Your task to perform on an android device: Go to Reddit.com Image 0: 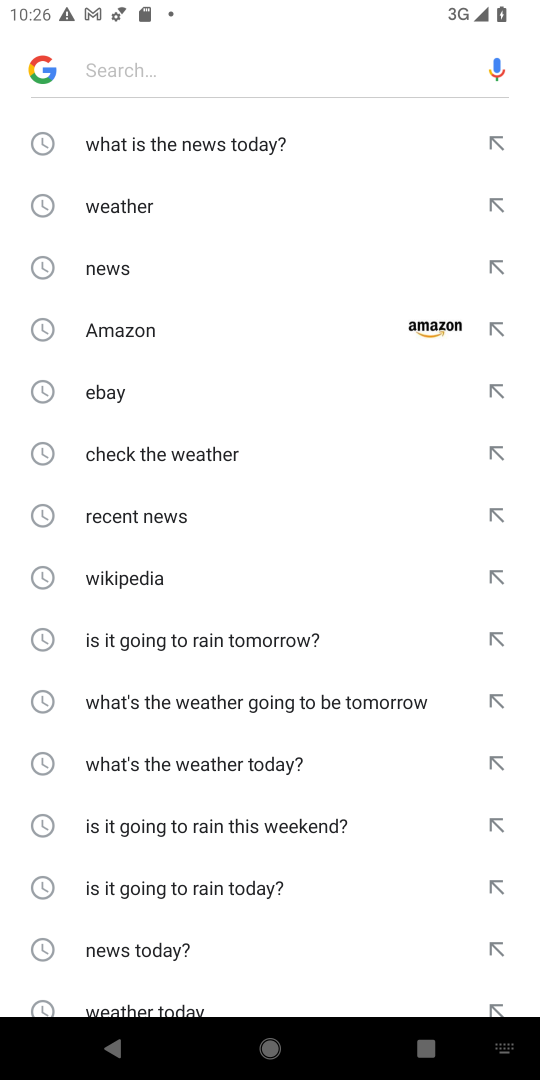
Step 0: press home button
Your task to perform on an android device: Go to Reddit.com Image 1: 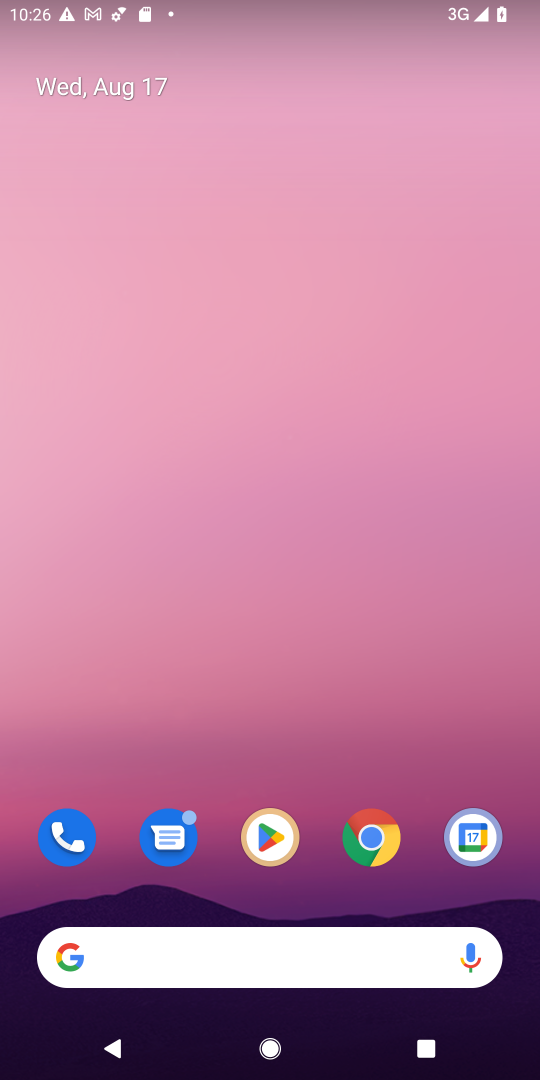
Step 1: click (367, 839)
Your task to perform on an android device: Go to Reddit.com Image 2: 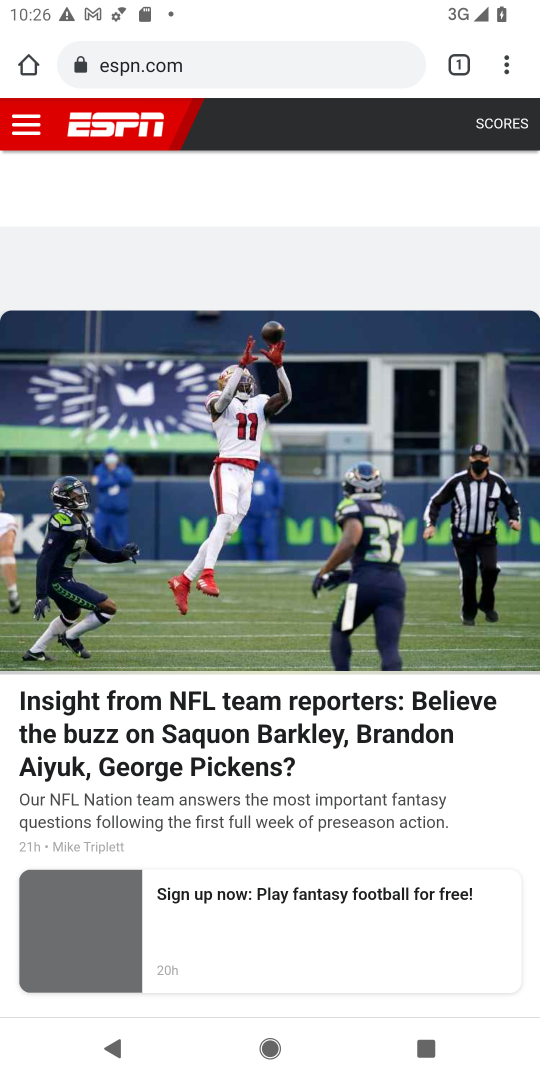
Step 2: click (332, 52)
Your task to perform on an android device: Go to Reddit.com Image 3: 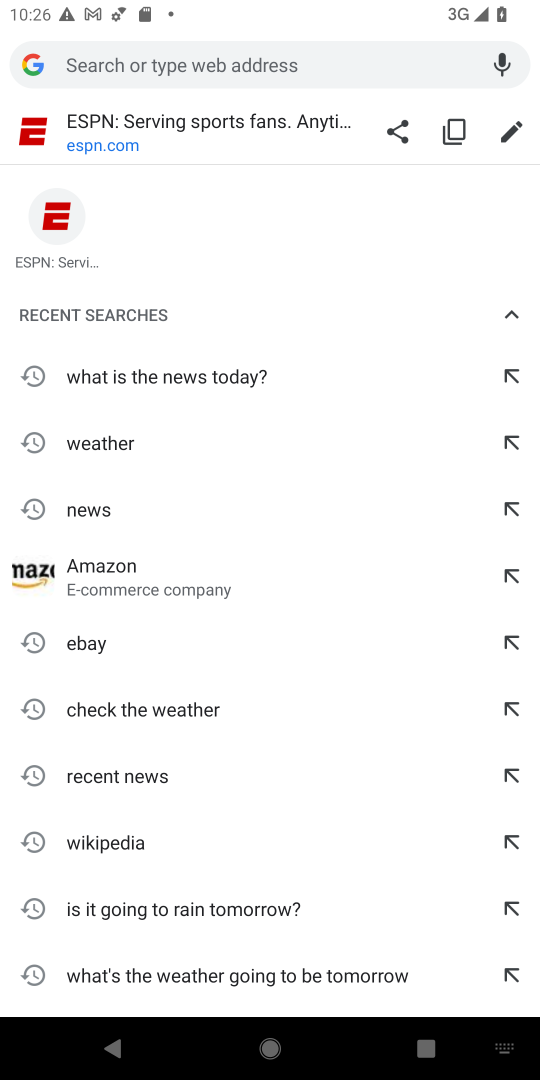
Step 3: type "Reddit.com"
Your task to perform on an android device: Go to Reddit.com Image 4: 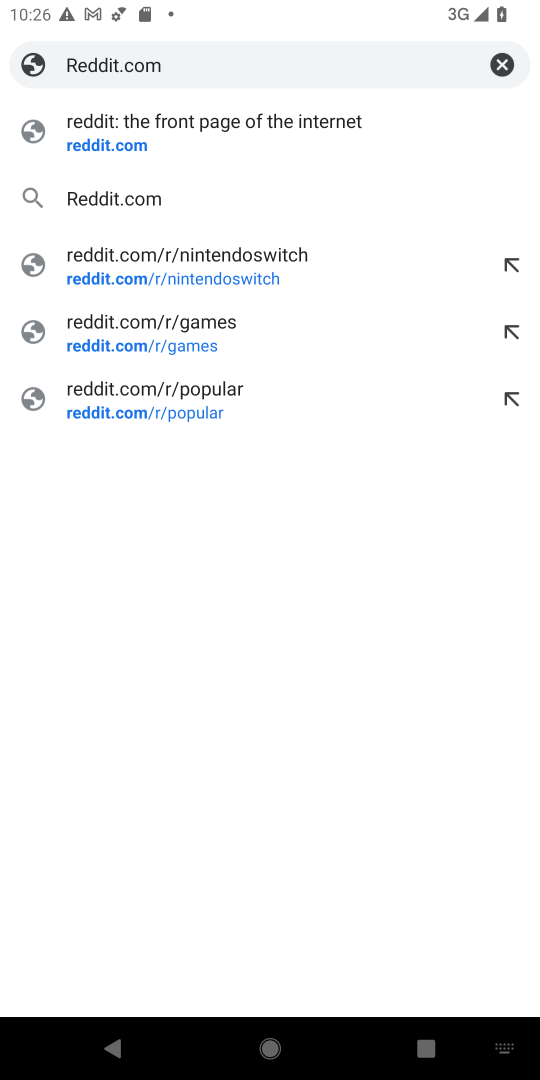
Step 4: click (149, 200)
Your task to perform on an android device: Go to Reddit.com Image 5: 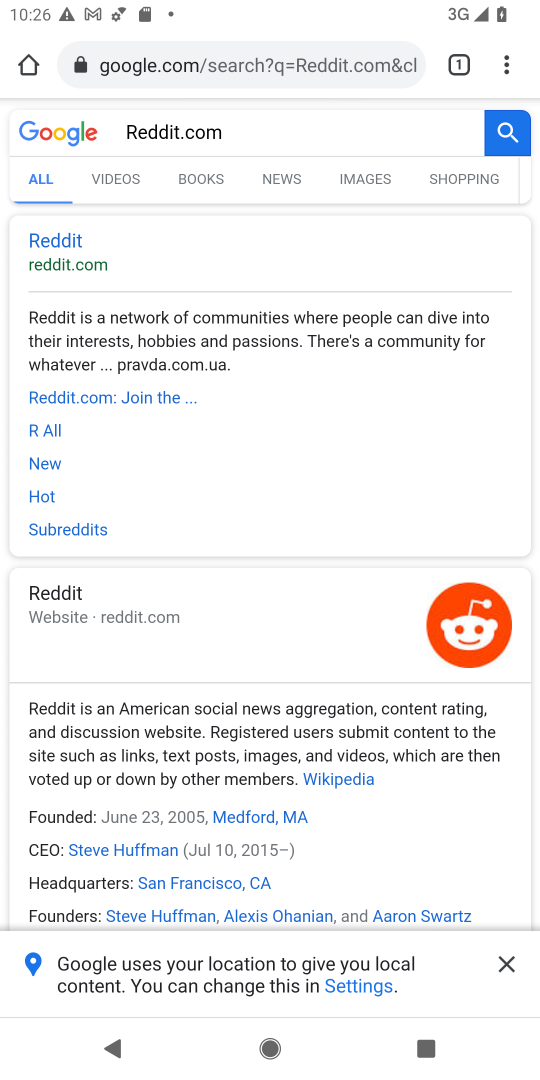
Step 5: click (65, 250)
Your task to perform on an android device: Go to Reddit.com Image 6: 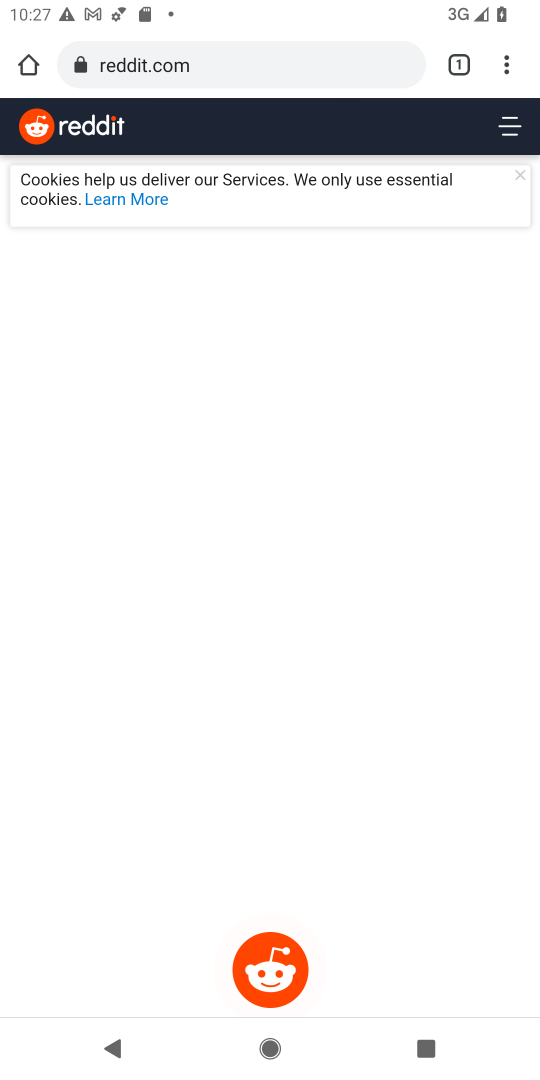
Step 6: task complete